Your task to perform on an android device: Is it going to rain this weekend? Image 0: 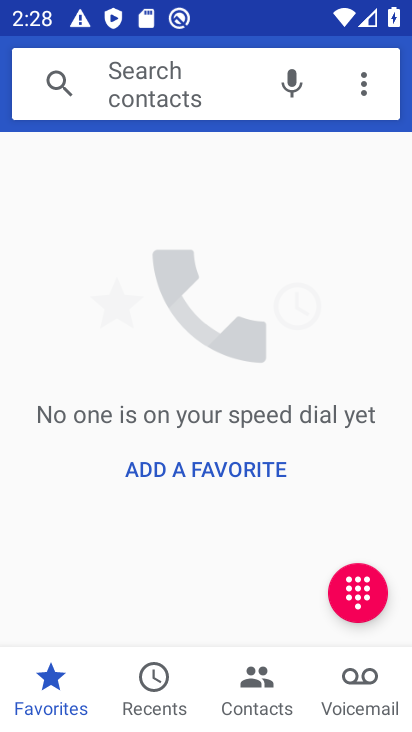
Step 0: press home button
Your task to perform on an android device: Is it going to rain this weekend? Image 1: 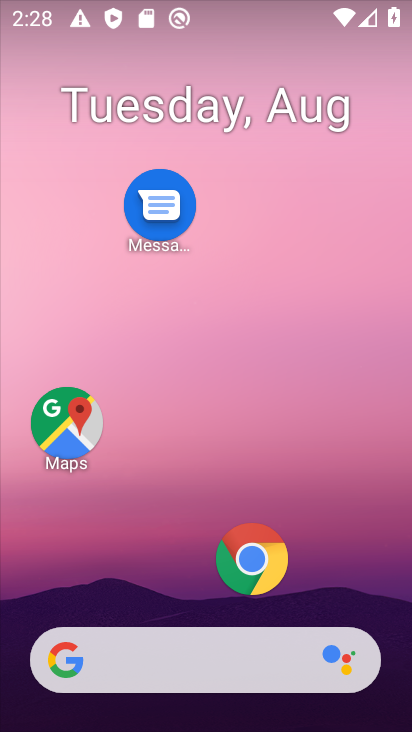
Step 1: click (196, 641)
Your task to perform on an android device: Is it going to rain this weekend? Image 2: 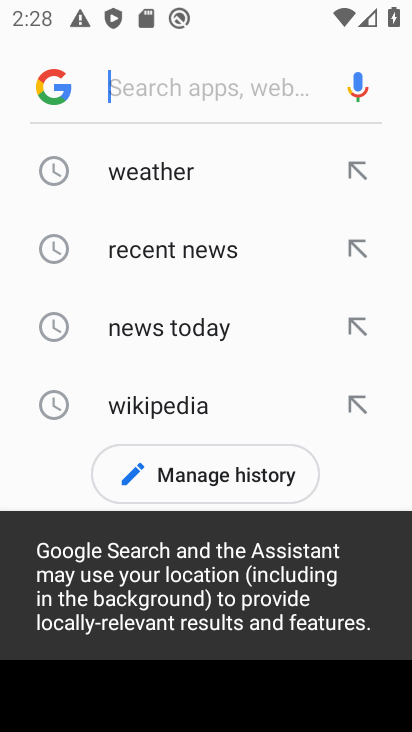
Step 2: click (130, 174)
Your task to perform on an android device: Is it going to rain this weekend? Image 3: 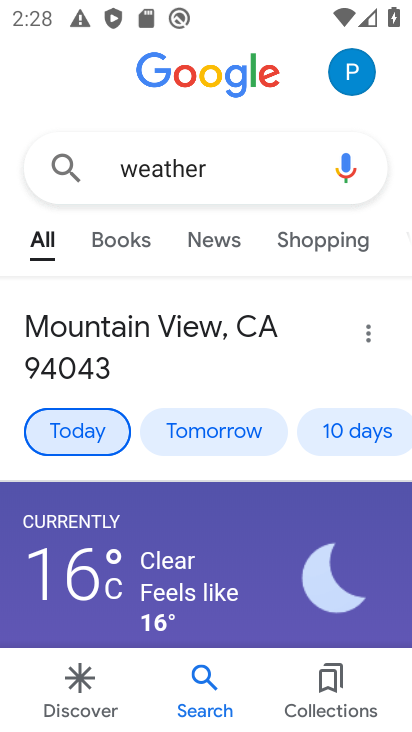
Step 3: click (352, 440)
Your task to perform on an android device: Is it going to rain this weekend? Image 4: 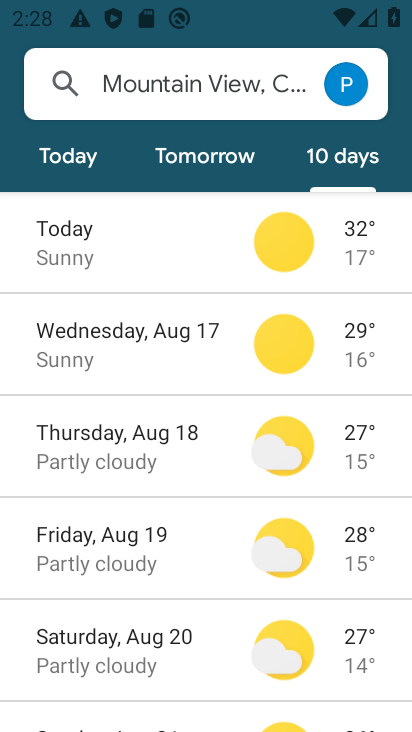
Step 4: task complete